Your task to perform on an android device: turn smart compose on in the gmail app Image 0: 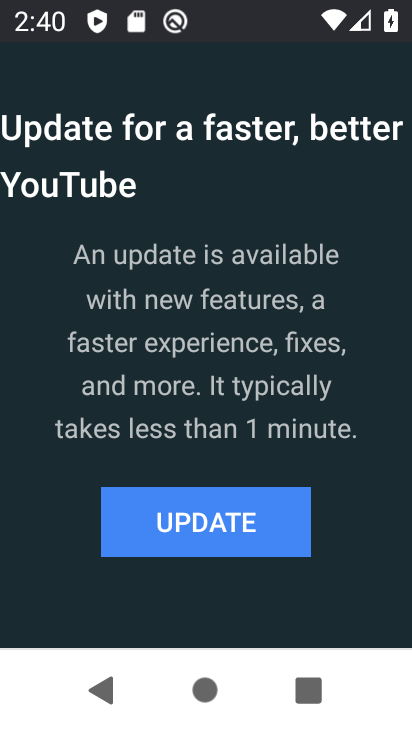
Step 0: press home button
Your task to perform on an android device: turn smart compose on in the gmail app Image 1: 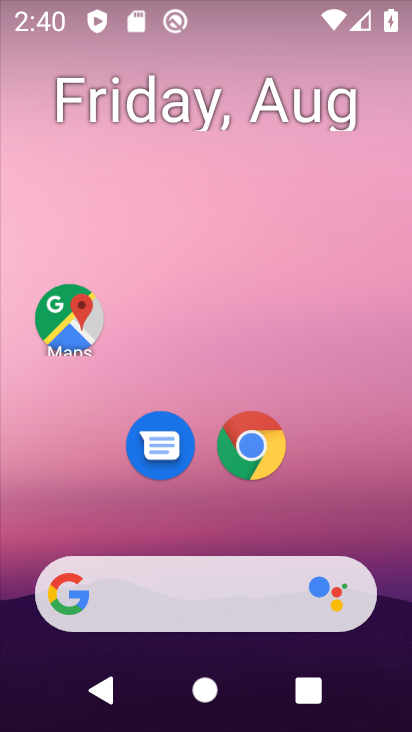
Step 1: drag from (347, 502) to (319, 34)
Your task to perform on an android device: turn smart compose on in the gmail app Image 2: 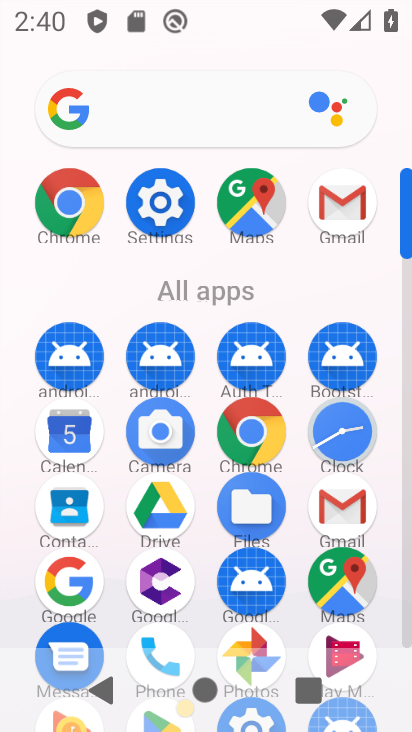
Step 2: click (349, 510)
Your task to perform on an android device: turn smart compose on in the gmail app Image 3: 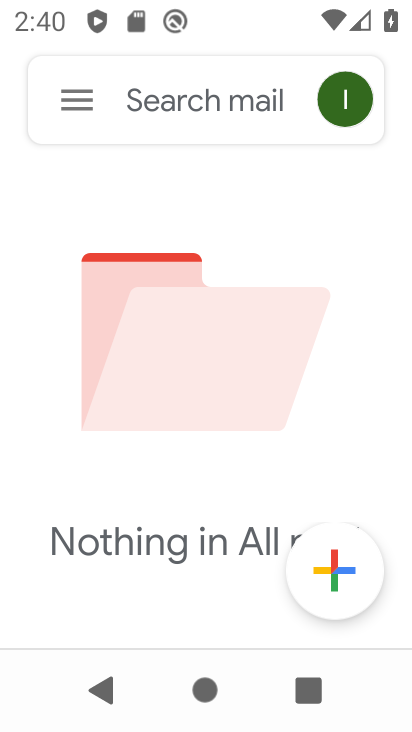
Step 3: click (75, 102)
Your task to perform on an android device: turn smart compose on in the gmail app Image 4: 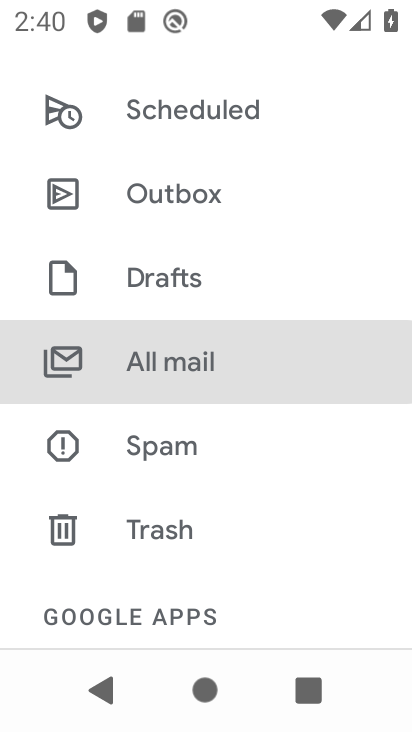
Step 4: drag from (219, 544) to (303, 127)
Your task to perform on an android device: turn smart compose on in the gmail app Image 5: 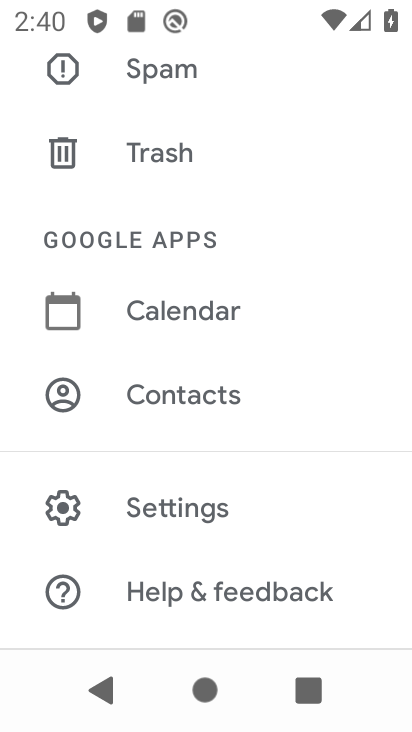
Step 5: click (182, 504)
Your task to perform on an android device: turn smart compose on in the gmail app Image 6: 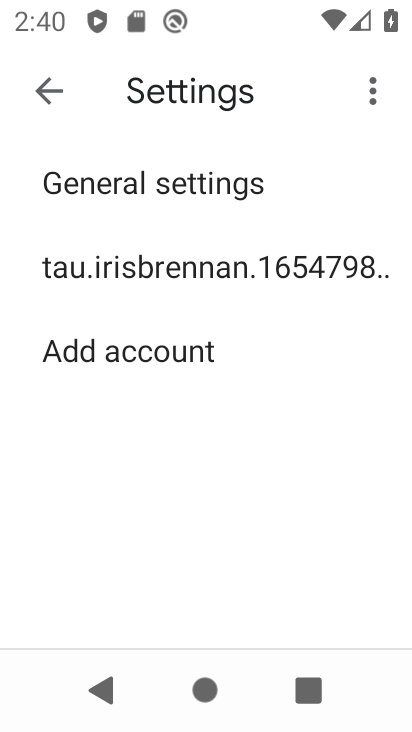
Step 6: click (212, 254)
Your task to perform on an android device: turn smart compose on in the gmail app Image 7: 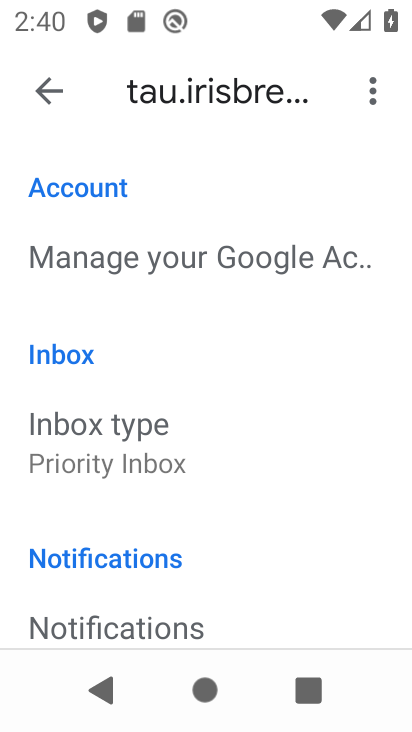
Step 7: task complete